Your task to perform on an android device: What's on my calendar today? Image 0: 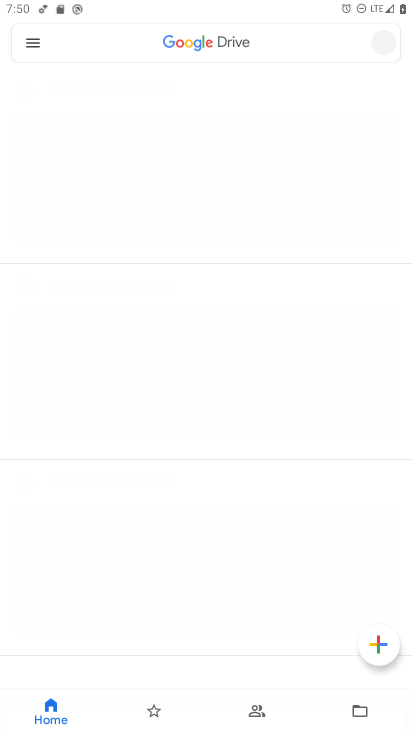
Step 0: click (182, 689)
Your task to perform on an android device: What's on my calendar today? Image 1: 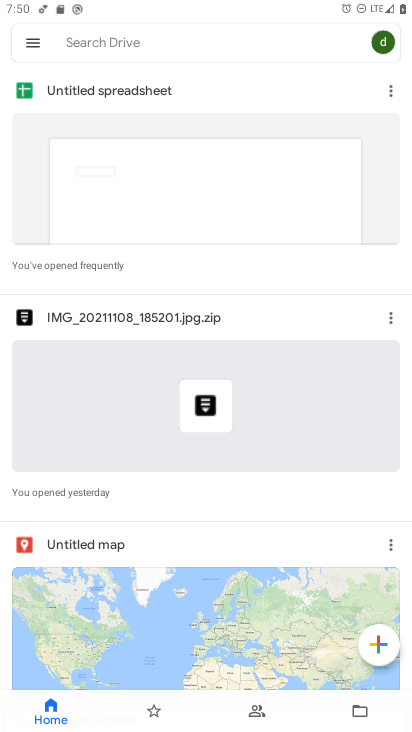
Step 1: press home button
Your task to perform on an android device: What's on my calendar today? Image 2: 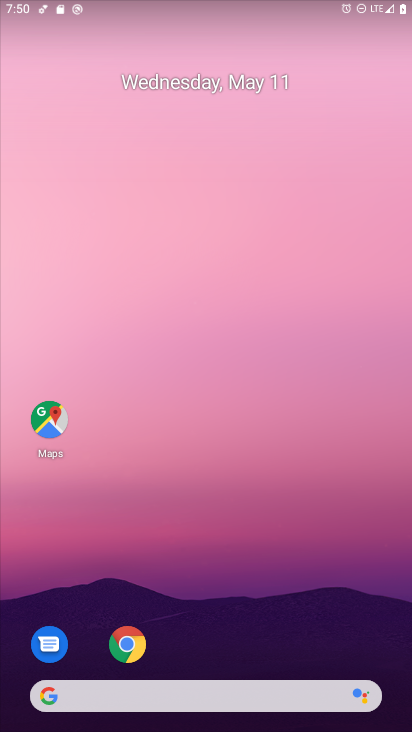
Step 2: drag from (200, 586) to (116, 92)
Your task to perform on an android device: What's on my calendar today? Image 3: 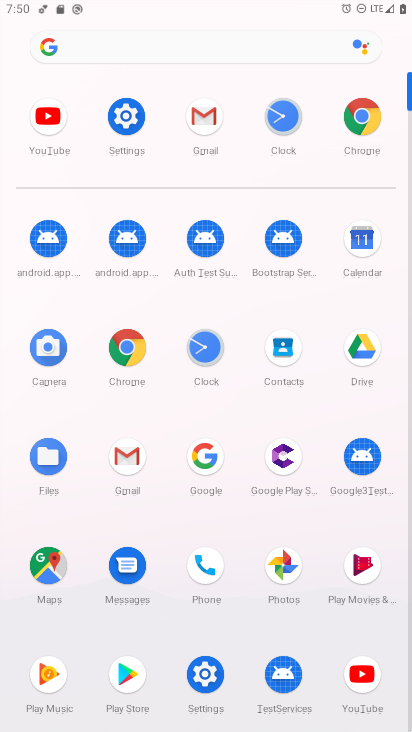
Step 3: click (364, 244)
Your task to perform on an android device: What's on my calendar today? Image 4: 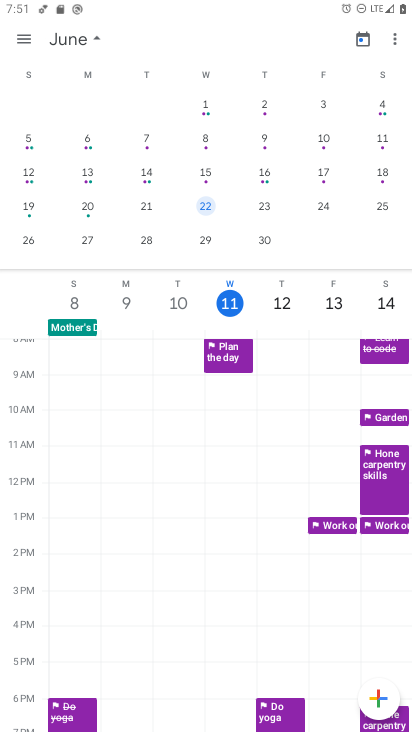
Step 4: drag from (24, 148) to (406, 256)
Your task to perform on an android device: What's on my calendar today? Image 5: 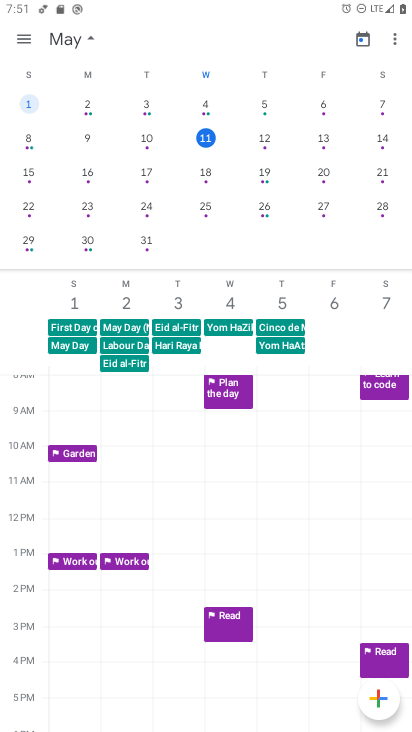
Step 5: click (22, 40)
Your task to perform on an android device: What's on my calendar today? Image 6: 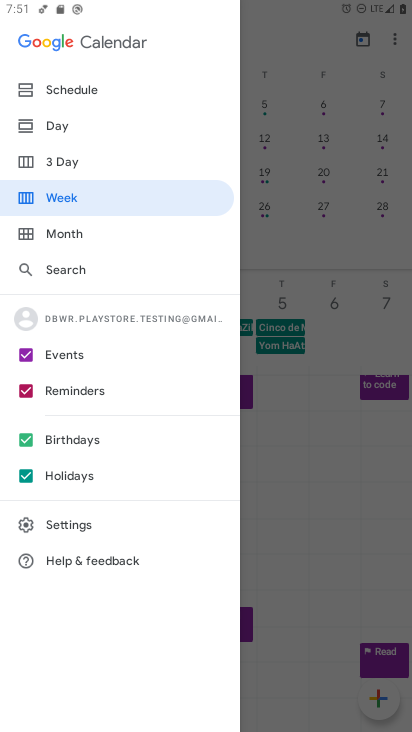
Step 6: click (64, 121)
Your task to perform on an android device: What's on my calendar today? Image 7: 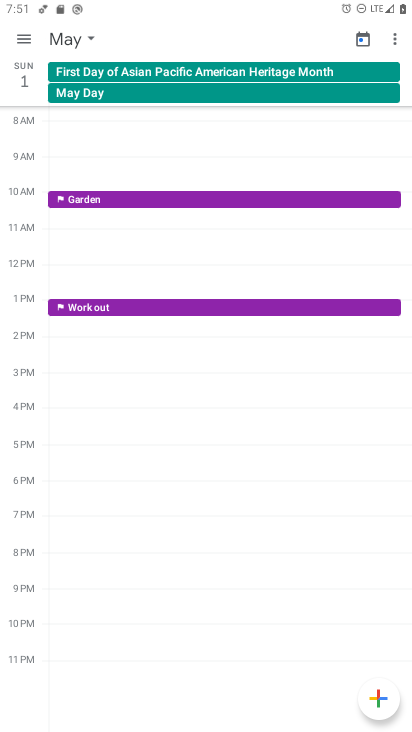
Step 7: click (88, 40)
Your task to perform on an android device: What's on my calendar today? Image 8: 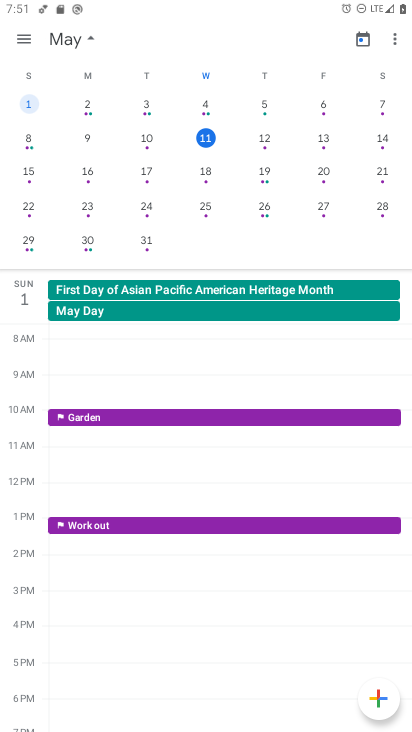
Step 8: click (88, 40)
Your task to perform on an android device: What's on my calendar today? Image 9: 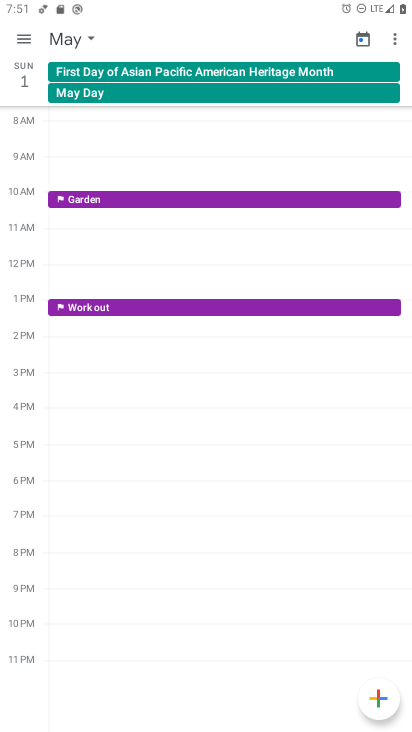
Step 9: task complete